Your task to perform on an android device: Do I have any events this weekend? Image 0: 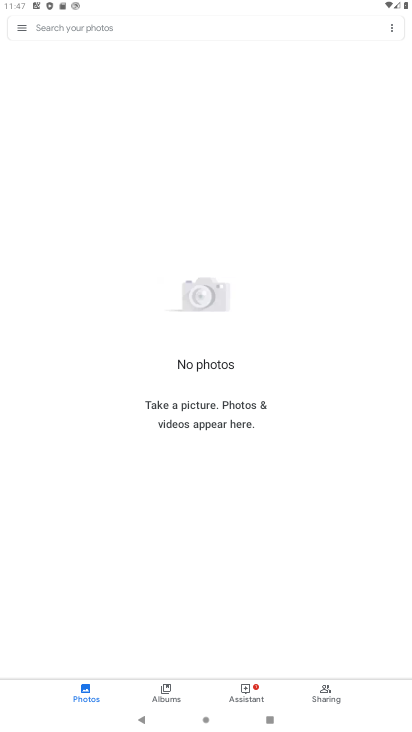
Step 0: press home button
Your task to perform on an android device: Do I have any events this weekend? Image 1: 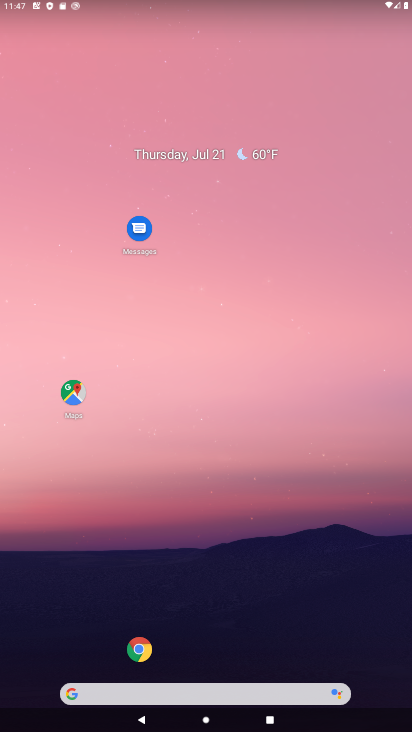
Step 1: drag from (55, 670) to (179, 131)
Your task to perform on an android device: Do I have any events this weekend? Image 2: 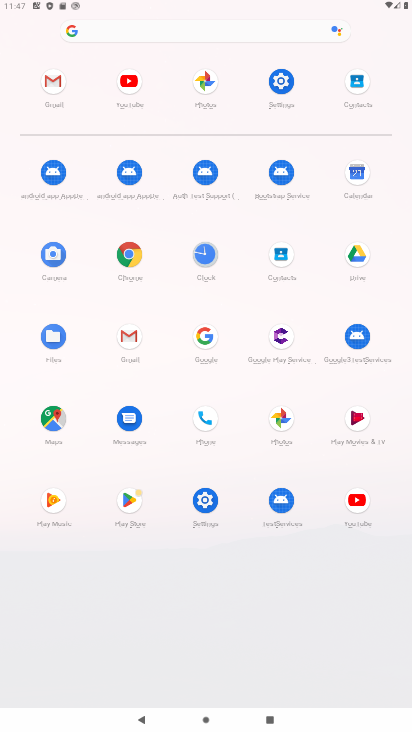
Step 2: click (349, 168)
Your task to perform on an android device: Do I have any events this weekend? Image 3: 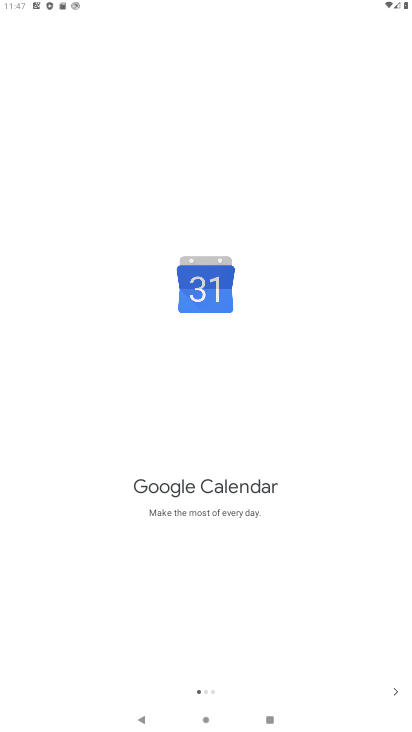
Step 3: click (398, 684)
Your task to perform on an android device: Do I have any events this weekend? Image 4: 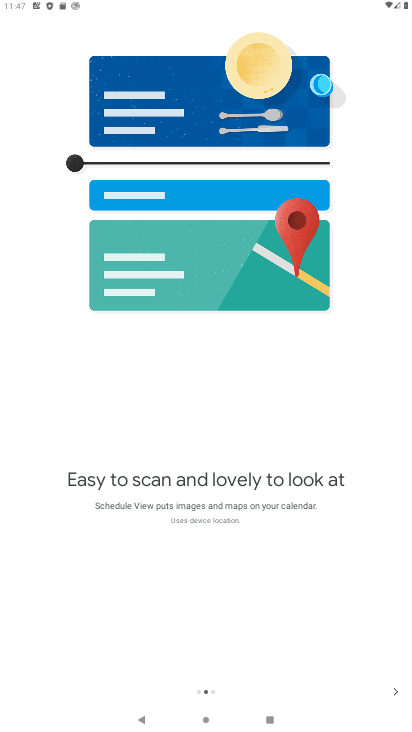
Step 4: click (392, 689)
Your task to perform on an android device: Do I have any events this weekend? Image 5: 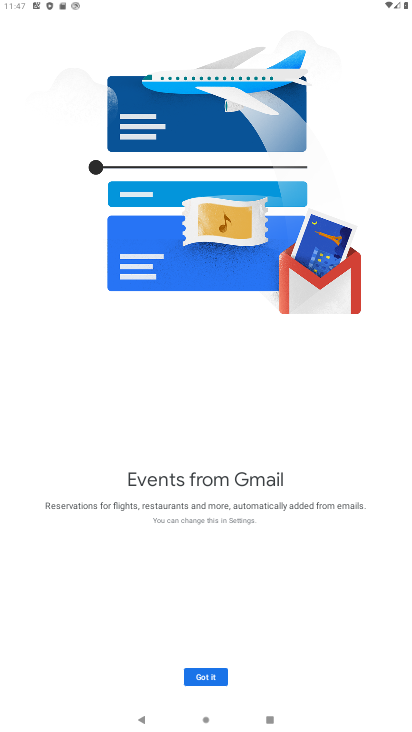
Step 5: click (211, 671)
Your task to perform on an android device: Do I have any events this weekend? Image 6: 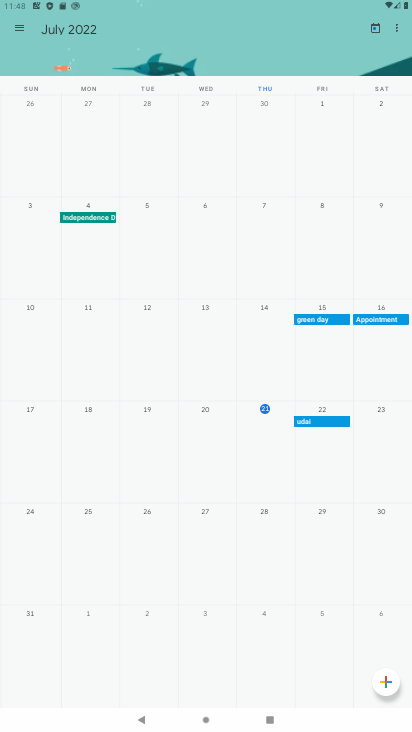
Step 6: task complete